Your task to perform on an android device: search for starred emails in the gmail app Image 0: 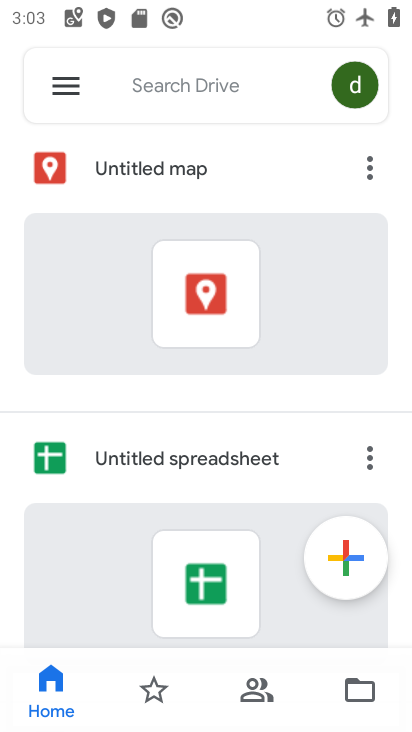
Step 0: press home button
Your task to perform on an android device: search for starred emails in the gmail app Image 1: 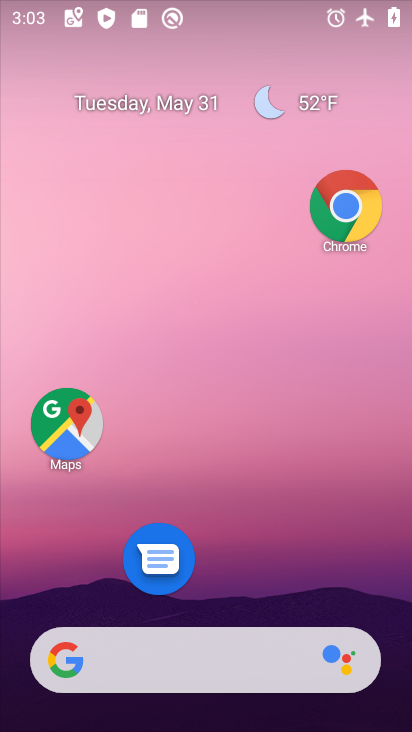
Step 1: drag from (243, 574) to (234, 22)
Your task to perform on an android device: search for starred emails in the gmail app Image 2: 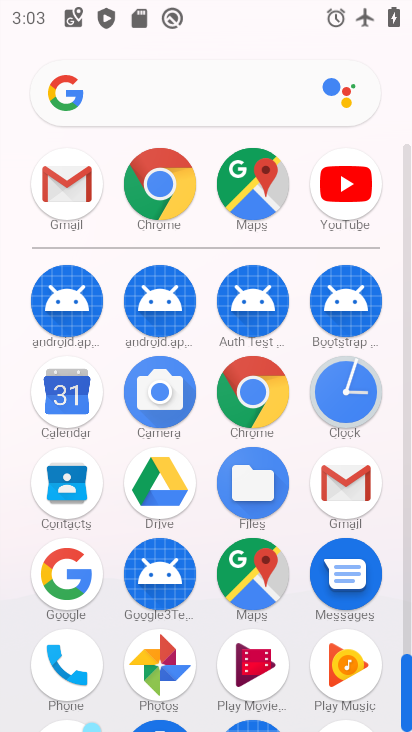
Step 2: click (327, 488)
Your task to perform on an android device: search for starred emails in the gmail app Image 3: 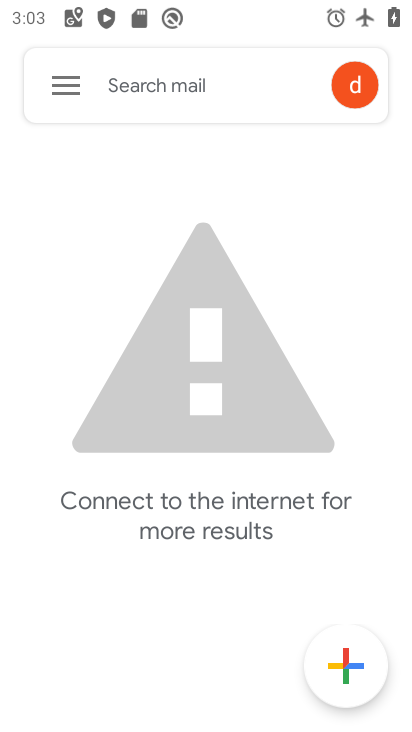
Step 3: click (51, 98)
Your task to perform on an android device: search for starred emails in the gmail app Image 4: 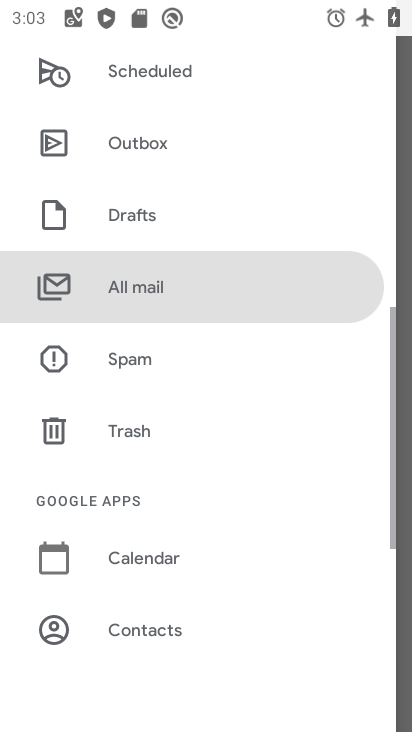
Step 4: drag from (220, 128) to (188, 584)
Your task to perform on an android device: search for starred emails in the gmail app Image 5: 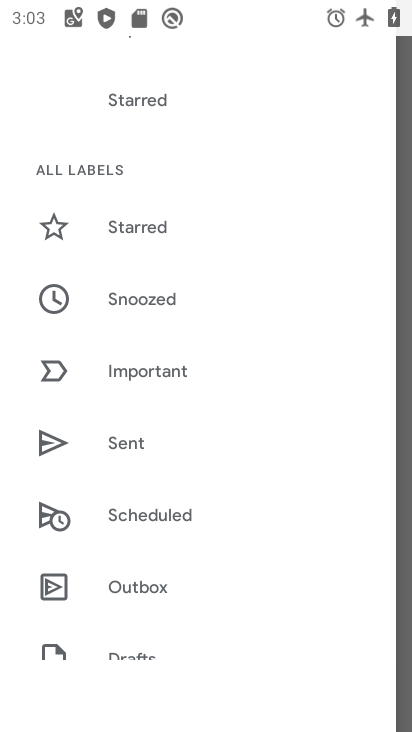
Step 5: click (168, 238)
Your task to perform on an android device: search for starred emails in the gmail app Image 6: 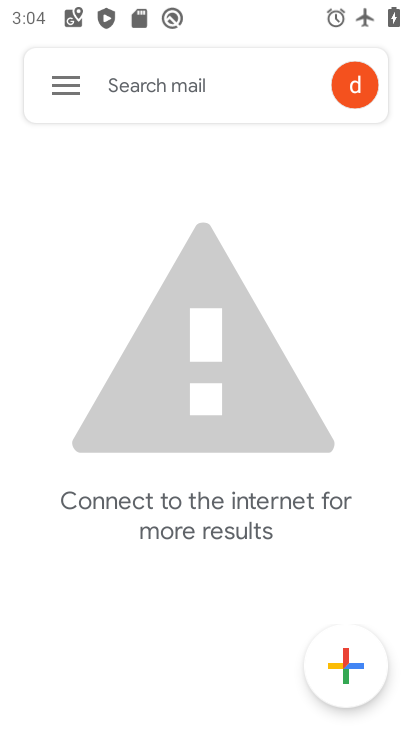
Step 6: task complete